Your task to perform on an android device: toggle translation in the chrome app Image 0: 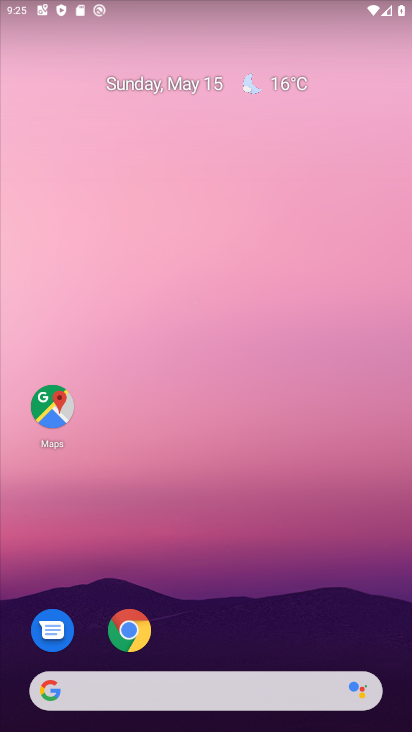
Step 0: click (120, 641)
Your task to perform on an android device: toggle translation in the chrome app Image 1: 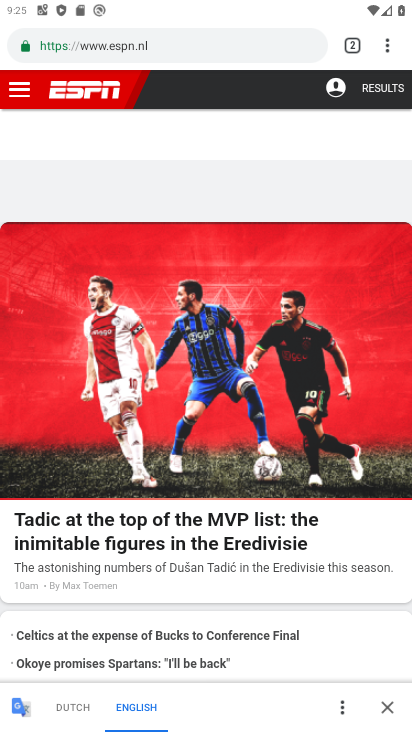
Step 1: drag from (385, 49) to (260, 493)
Your task to perform on an android device: toggle translation in the chrome app Image 2: 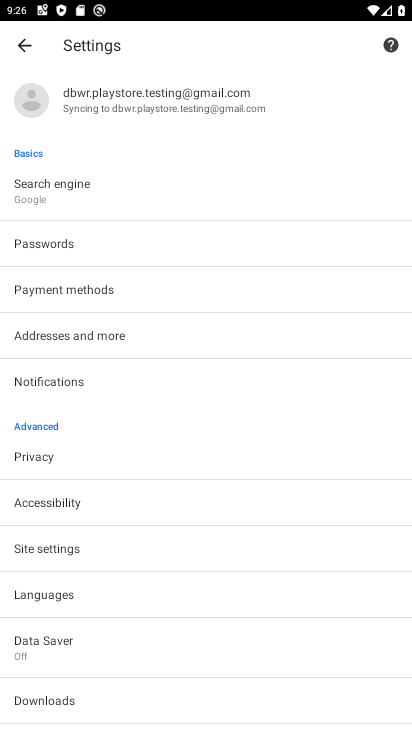
Step 2: click (84, 592)
Your task to perform on an android device: toggle translation in the chrome app Image 3: 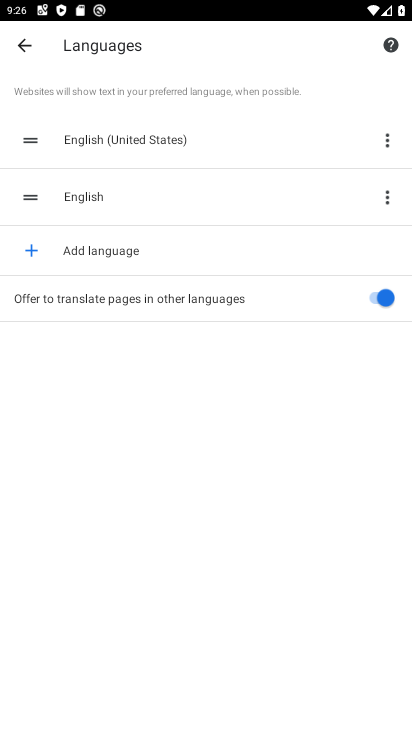
Step 3: click (372, 296)
Your task to perform on an android device: toggle translation in the chrome app Image 4: 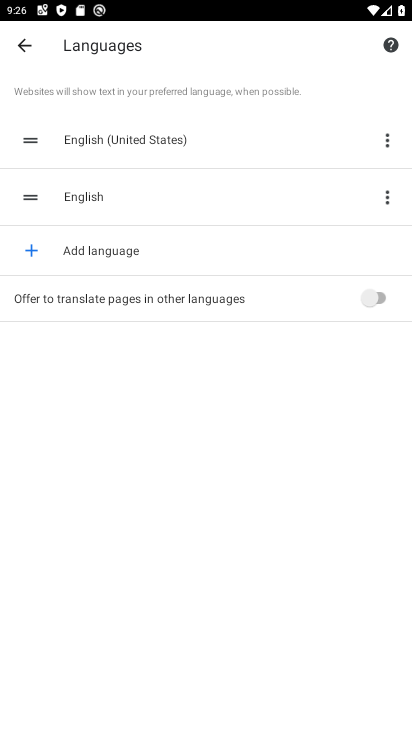
Step 4: task complete